Your task to perform on an android device: toggle notifications settings in the gmail app Image 0: 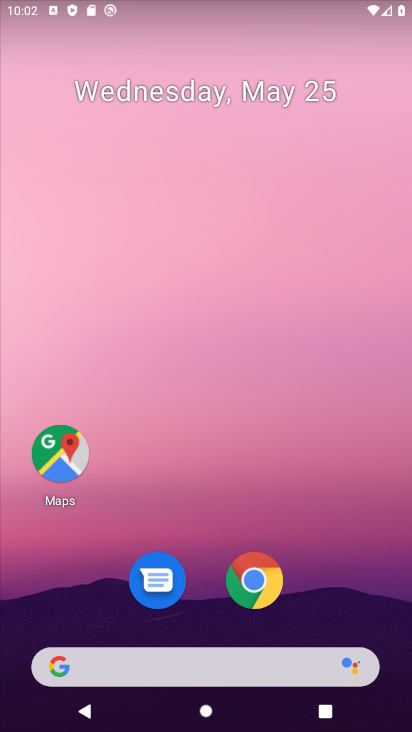
Step 0: drag from (74, 384) to (179, 134)
Your task to perform on an android device: toggle notifications settings in the gmail app Image 1: 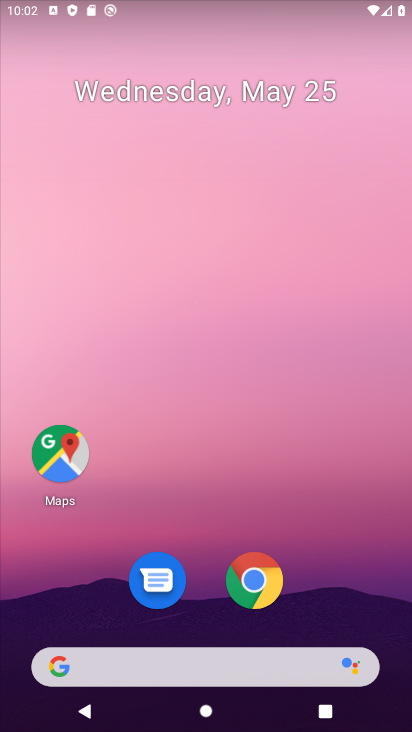
Step 1: drag from (63, 521) to (261, 57)
Your task to perform on an android device: toggle notifications settings in the gmail app Image 2: 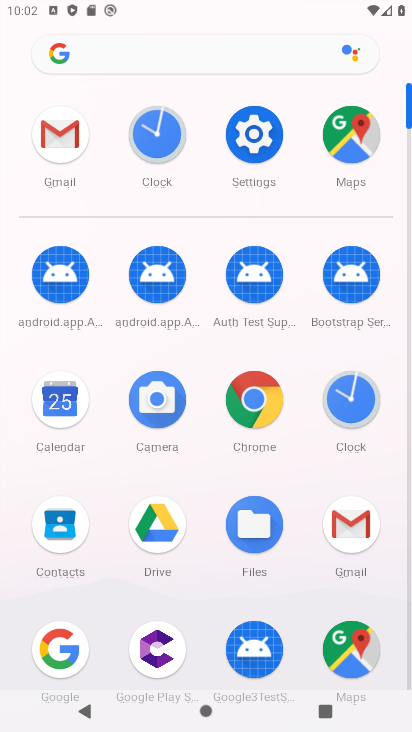
Step 2: click (67, 139)
Your task to perform on an android device: toggle notifications settings in the gmail app Image 3: 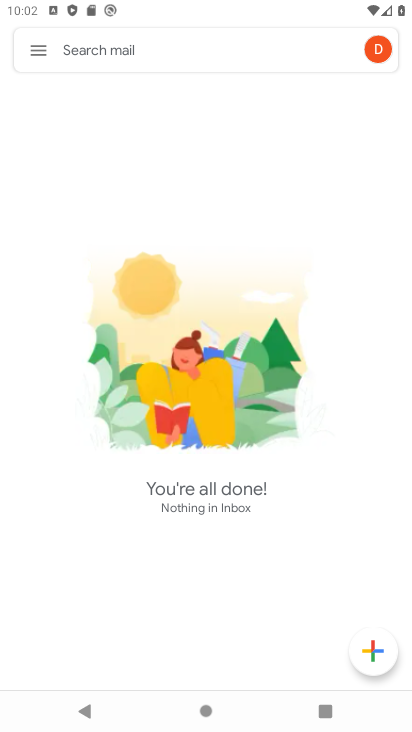
Step 3: click (47, 51)
Your task to perform on an android device: toggle notifications settings in the gmail app Image 4: 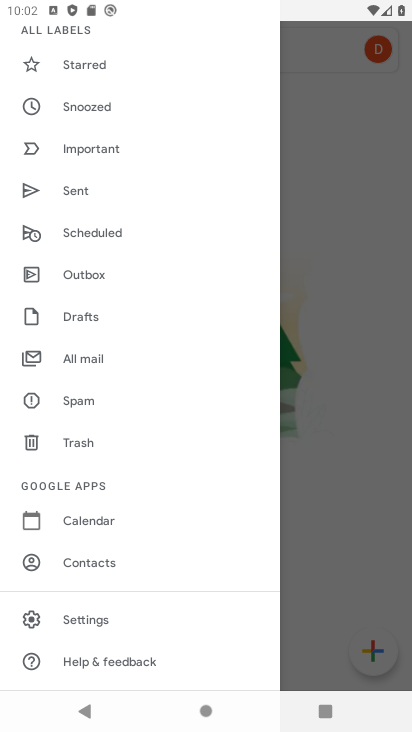
Step 4: click (98, 624)
Your task to perform on an android device: toggle notifications settings in the gmail app Image 5: 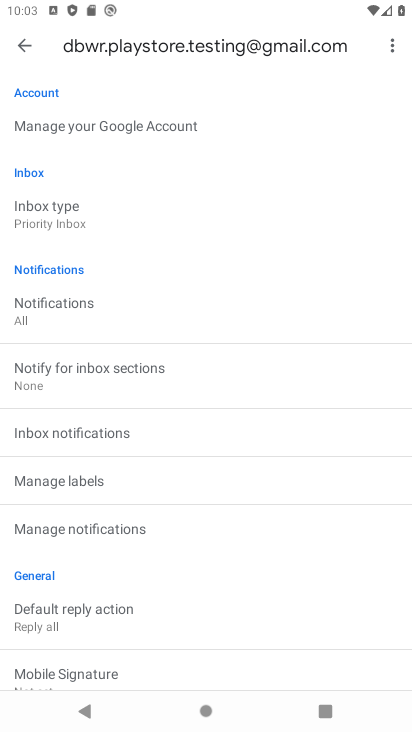
Step 5: click (120, 526)
Your task to perform on an android device: toggle notifications settings in the gmail app Image 6: 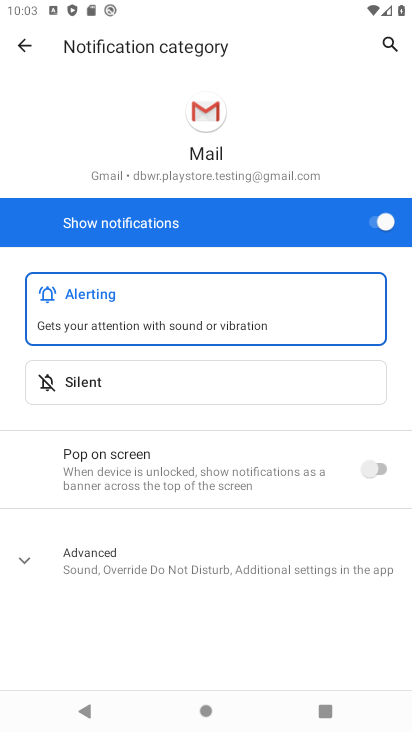
Step 6: click (389, 219)
Your task to perform on an android device: toggle notifications settings in the gmail app Image 7: 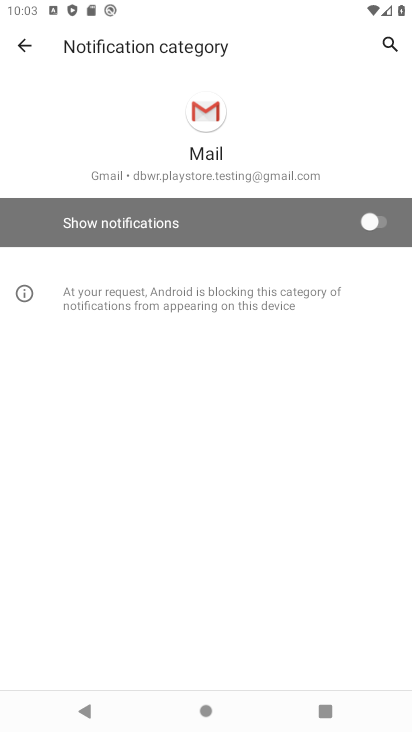
Step 7: task complete